Your task to perform on an android device: allow cookies in the chrome app Image 0: 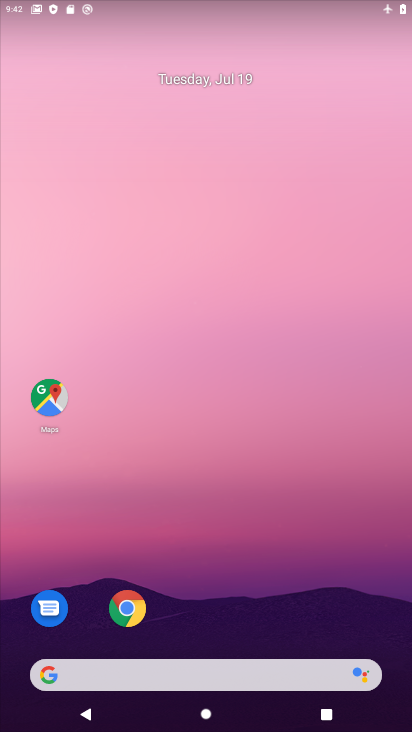
Step 0: drag from (285, 612) to (312, 56)
Your task to perform on an android device: allow cookies in the chrome app Image 1: 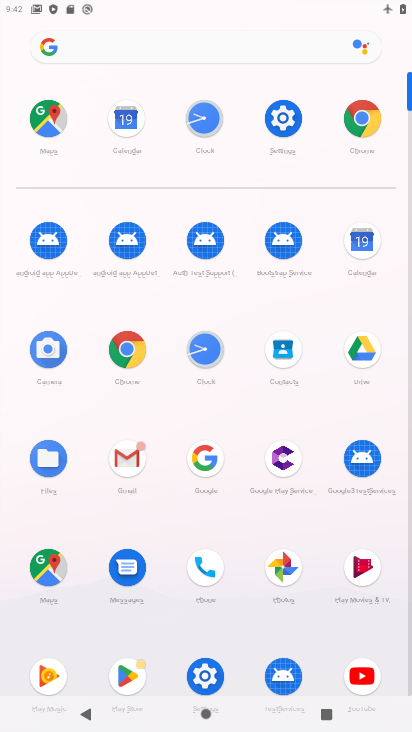
Step 1: click (366, 115)
Your task to perform on an android device: allow cookies in the chrome app Image 2: 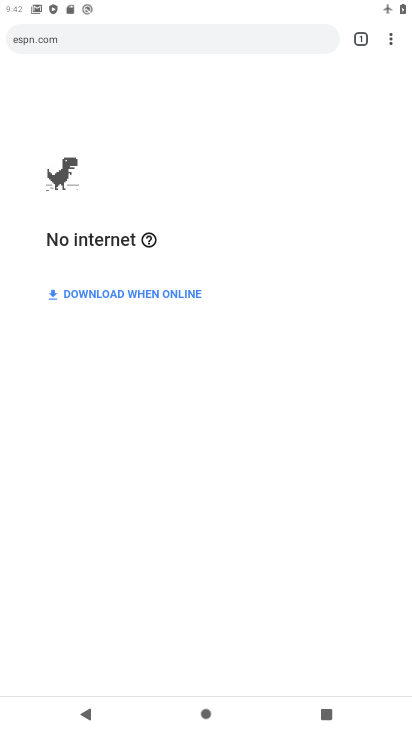
Step 2: click (391, 38)
Your task to perform on an android device: allow cookies in the chrome app Image 3: 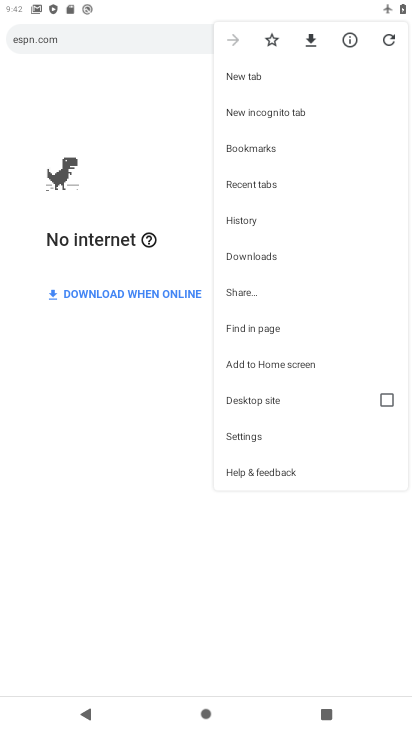
Step 3: click (249, 447)
Your task to perform on an android device: allow cookies in the chrome app Image 4: 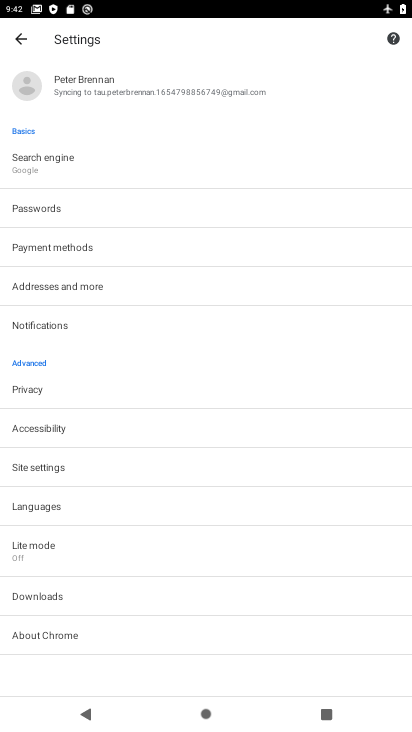
Step 4: click (61, 464)
Your task to perform on an android device: allow cookies in the chrome app Image 5: 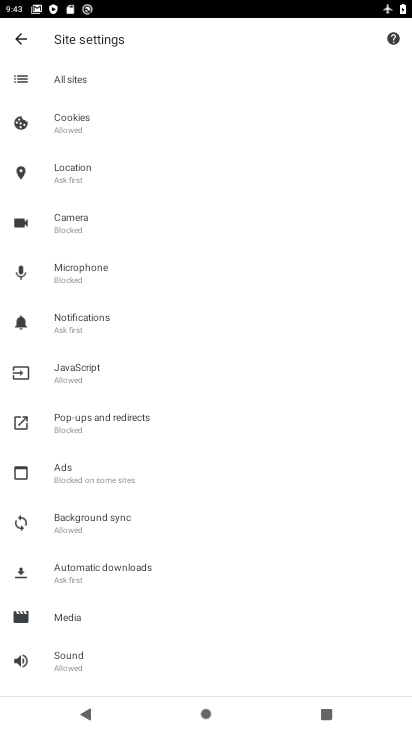
Step 5: click (78, 124)
Your task to perform on an android device: allow cookies in the chrome app Image 6: 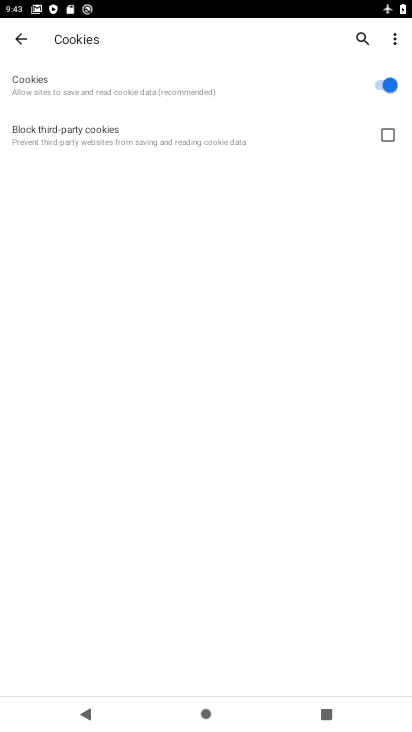
Step 6: task complete